Your task to perform on an android device: Search for Mexican restaurants on Maps Image 0: 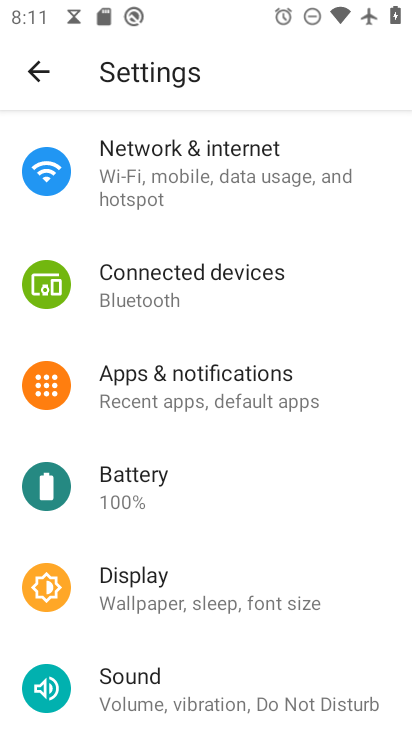
Step 0: press home button
Your task to perform on an android device: Search for Mexican restaurants on Maps Image 1: 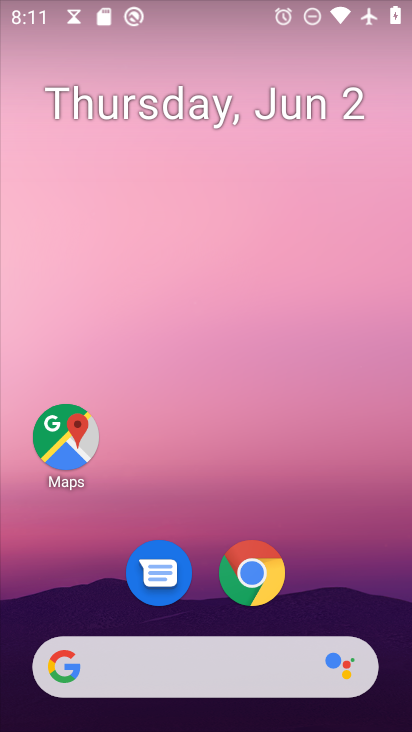
Step 1: click (70, 438)
Your task to perform on an android device: Search for Mexican restaurants on Maps Image 2: 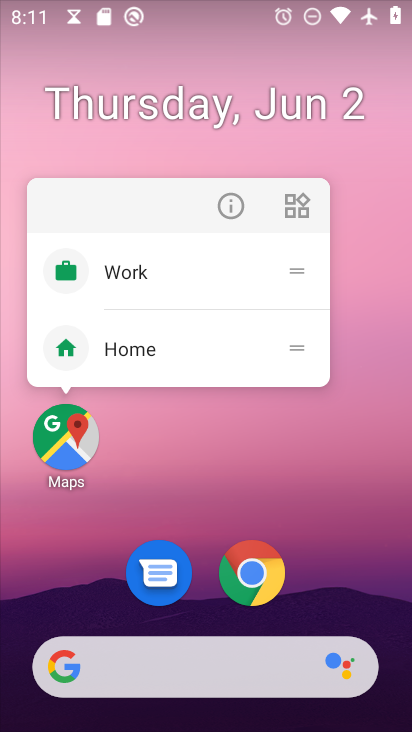
Step 2: click (74, 453)
Your task to perform on an android device: Search for Mexican restaurants on Maps Image 3: 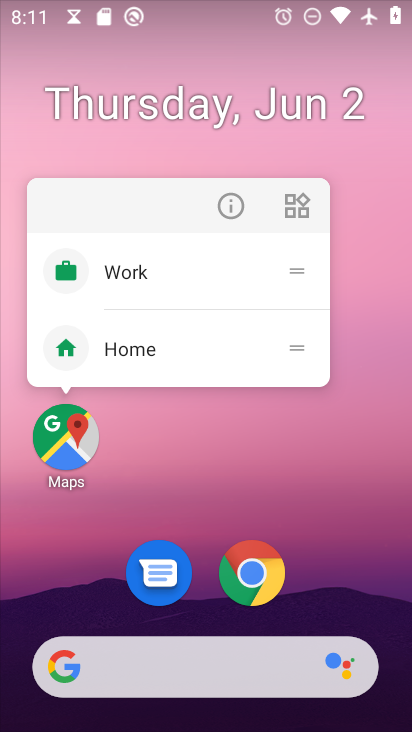
Step 3: click (66, 448)
Your task to perform on an android device: Search for Mexican restaurants on Maps Image 4: 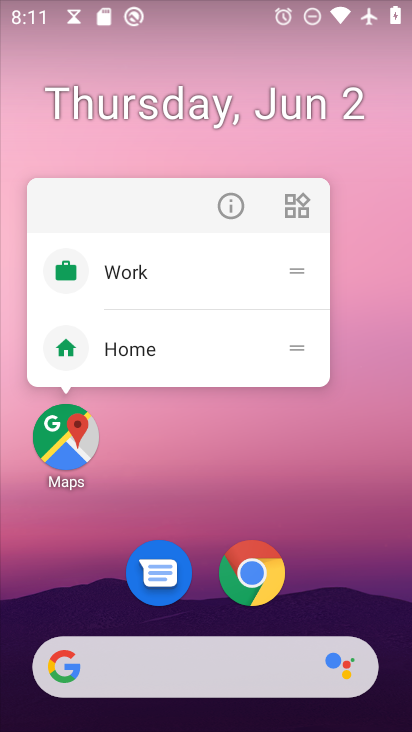
Step 4: click (63, 445)
Your task to perform on an android device: Search for Mexican restaurants on Maps Image 5: 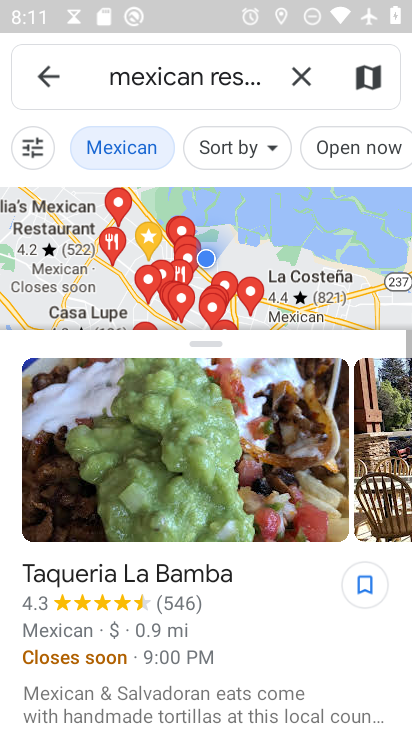
Step 5: task complete